Your task to perform on an android device: allow notifications from all sites in the chrome app Image 0: 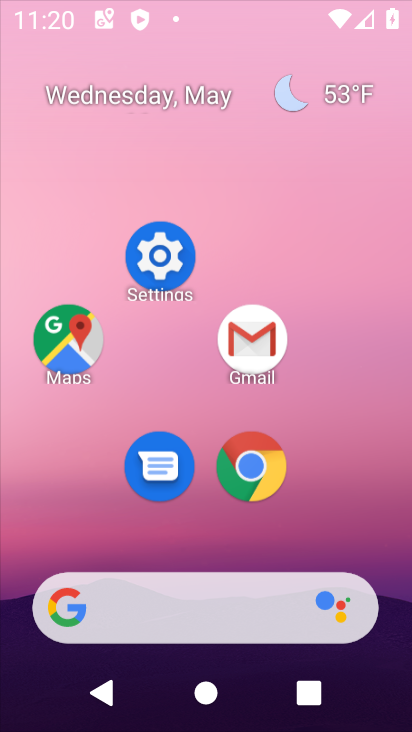
Step 0: drag from (259, 369) to (276, 227)
Your task to perform on an android device: allow notifications from all sites in the chrome app Image 1: 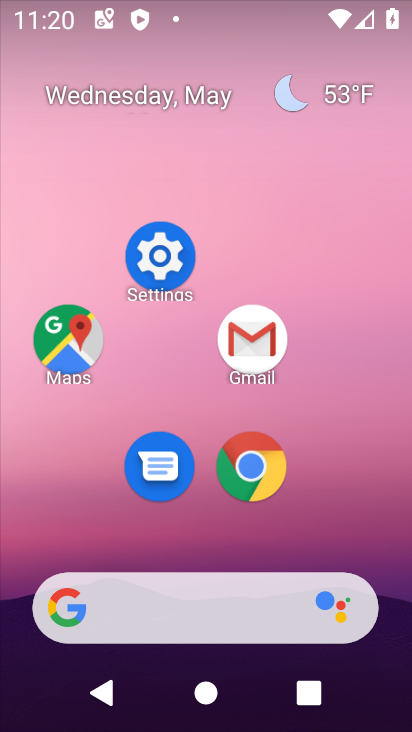
Step 1: click (252, 461)
Your task to perform on an android device: allow notifications from all sites in the chrome app Image 2: 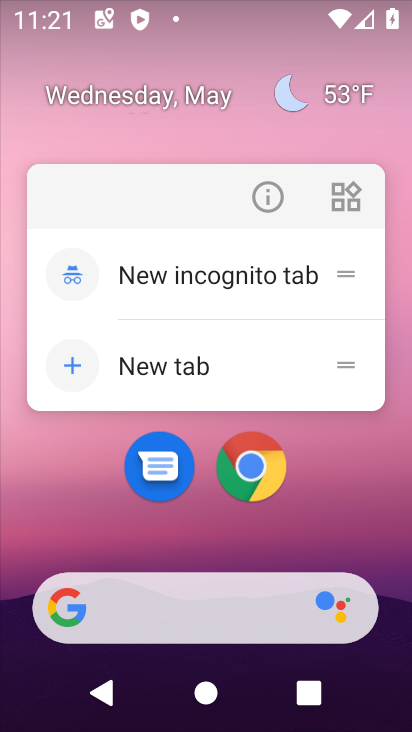
Step 2: click (270, 198)
Your task to perform on an android device: allow notifications from all sites in the chrome app Image 3: 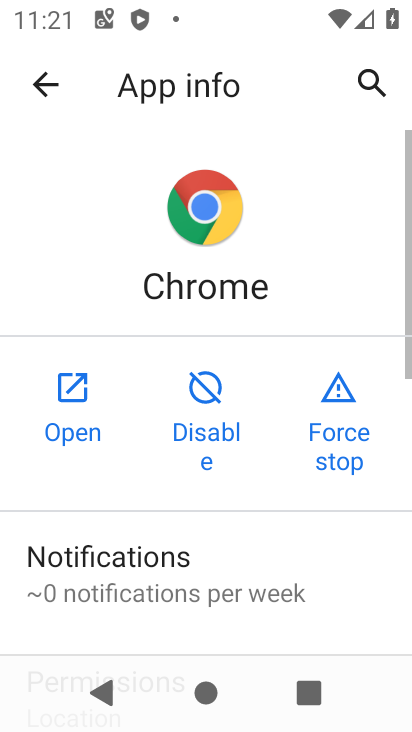
Step 3: click (53, 396)
Your task to perform on an android device: allow notifications from all sites in the chrome app Image 4: 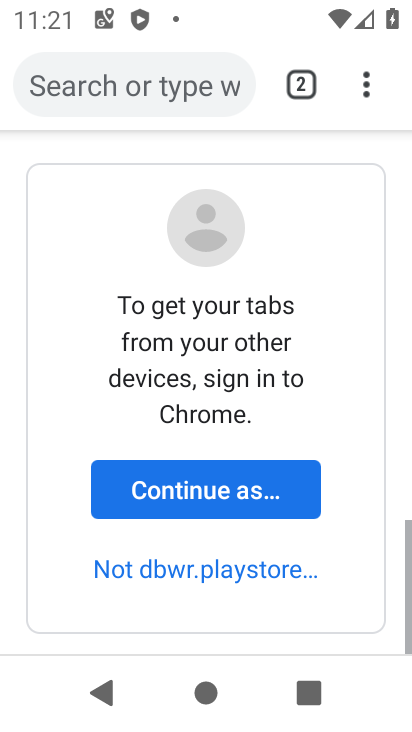
Step 4: click (380, 94)
Your task to perform on an android device: allow notifications from all sites in the chrome app Image 5: 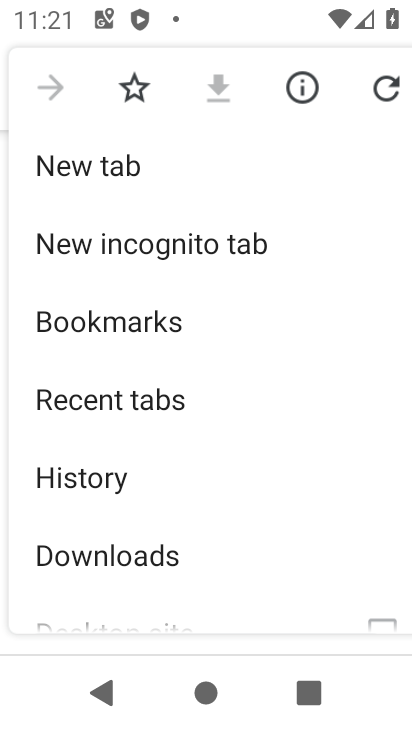
Step 5: drag from (192, 573) to (360, 61)
Your task to perform on an android device: allow notifications from all sites in the chrome app Image 6: 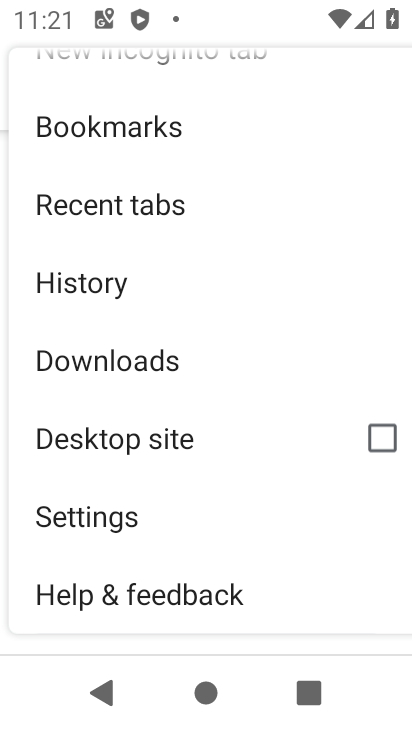
Step 6: click (92, 532)
Your task to perform on an android device: allow notifications from all sites in the chrome app Image 7: 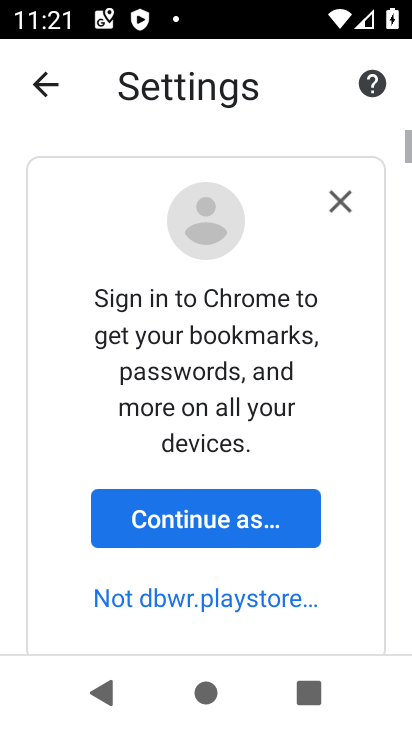
Step 7: drag from (201, 571) to (314, 203)
Your task to perform on an android device: allow notifications from all sites in the chrome app Image 8: 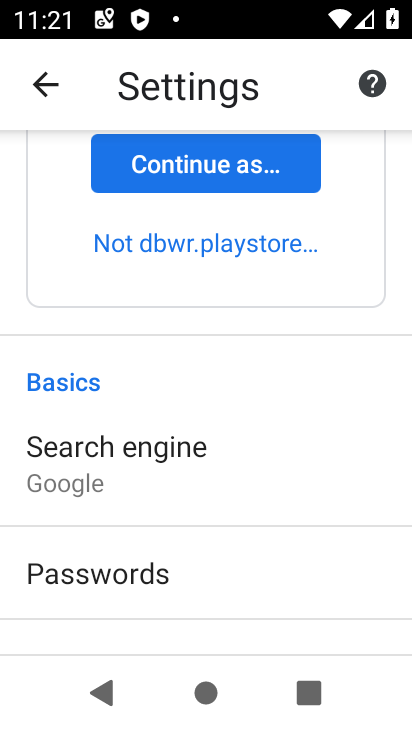
Step 8: drag from (136, 559) to (237, 96)
Your task to perform on an android device: allow notifications from all sites in the chrome app Image 9: 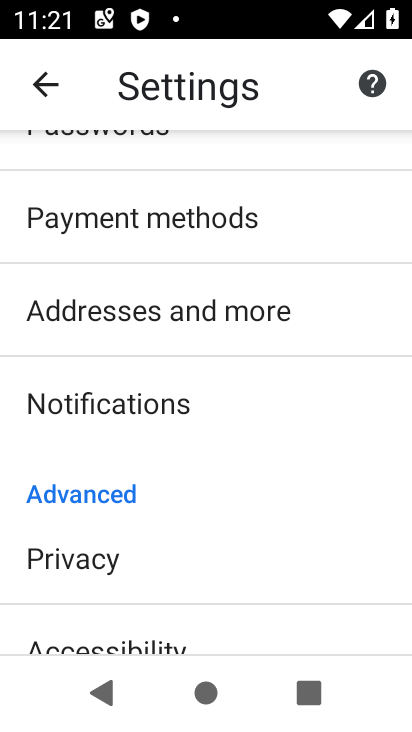
Step 9: drag from (207, 585) to (281, 198)
Your task to perform on an android device: allow notifications from all sites in the chrome app Image 10: 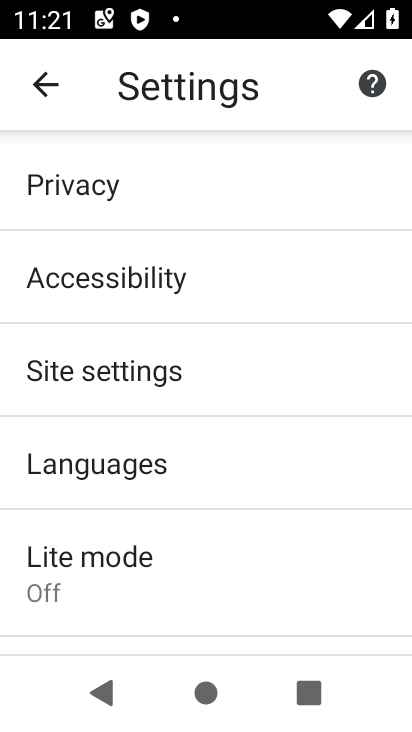
Step 10: click (128, 365)
Your task to perform on an android device: allow notifications from all sites in the chrome app Image 11: 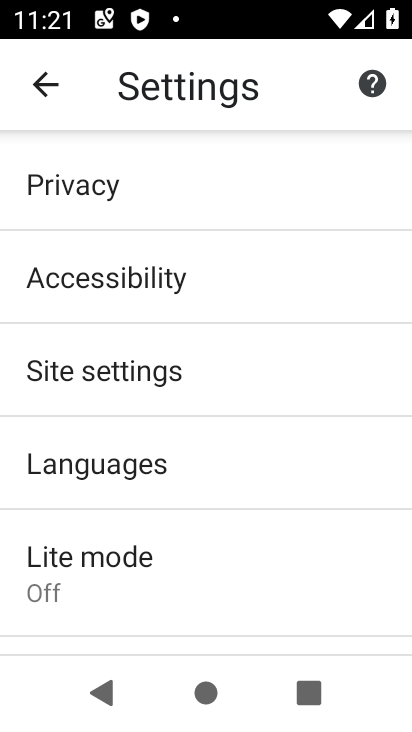
Step 11: click (128, 365)
Your task to perform on an android device: allow notifications from all sites in the chrome app Image 12: 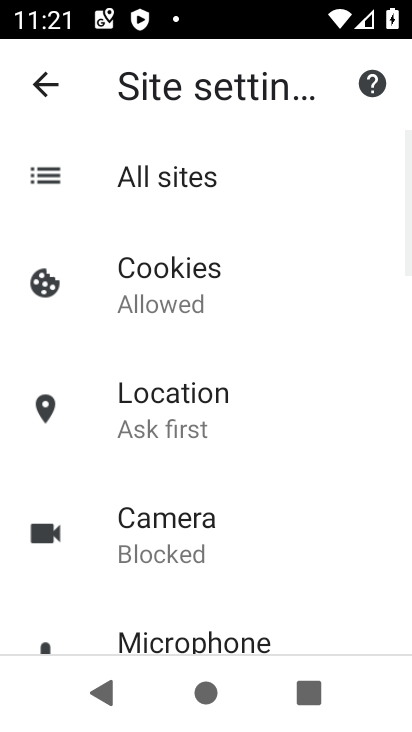
Step 12: drag from (231, 604) to (288, 212)
Your task to perform on an android device: allow notifications from all sites in the chrome app Image 13: 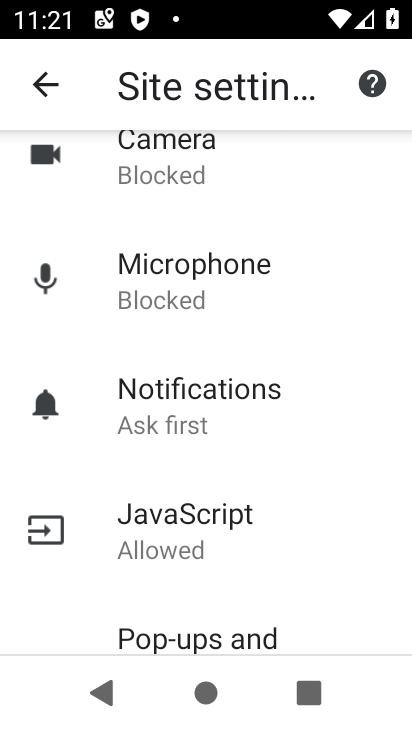
Step 13: click (180, 402)
Your task to perform on an android device: allow notifications from all sites in the chrome app Image 14: 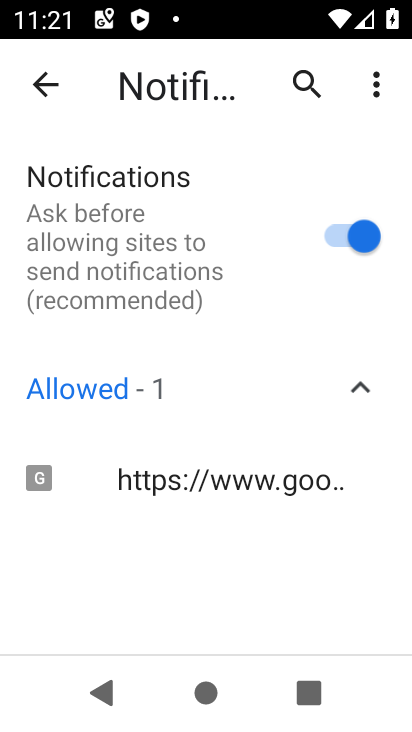
Step 14: task complete